Your task to perform on an android device: turn on the 12-hour format for clock Image 0: 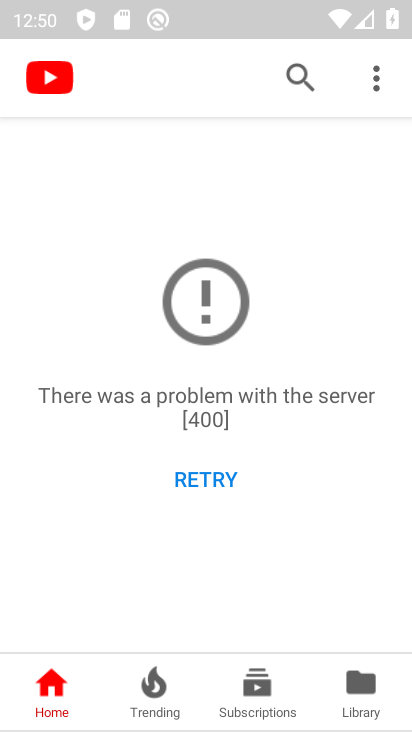
Step 0: press home button
Your task to perform on an android device: turn on the 12-hour format for clock Image 1: 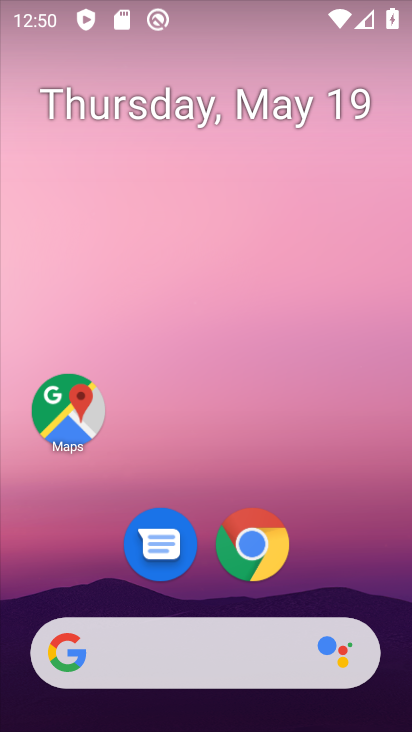
Step 1: drag from (331, 568) to (267, 122)
Your task to perform on an android device: turn on the 12-hour format for clock Image 2: 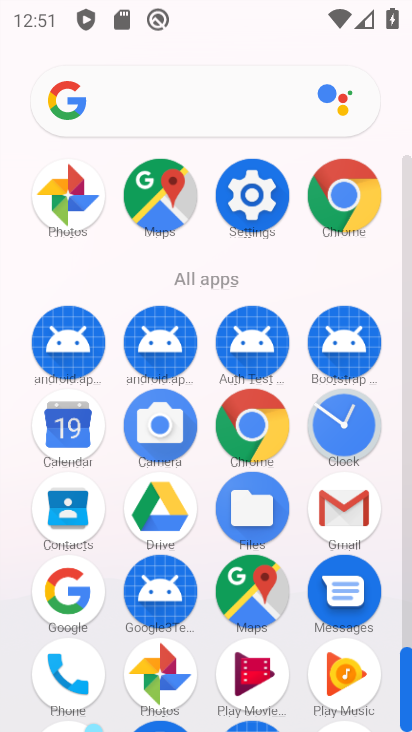
Step 2: drag from (203, 563) to (203, 423)
Your task to perform on an android device: turn on the 12-hour format for clock Image 3: 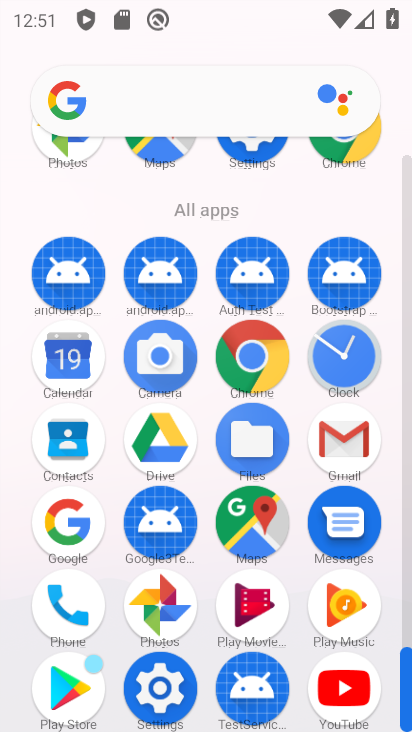
Step 3: click (367, 356)
Your task to perform on an android device: turn on the 12-hour format for clock Image 4: 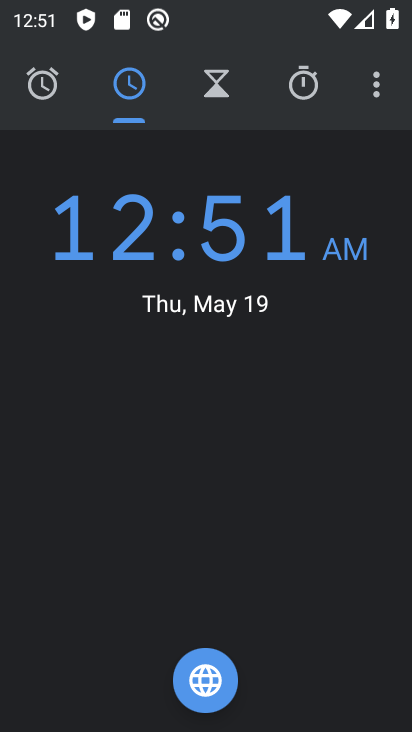
Step 4: click (366, 81)
Your task to perform on an android device: turn on the 12-hour format for clock Image 5: 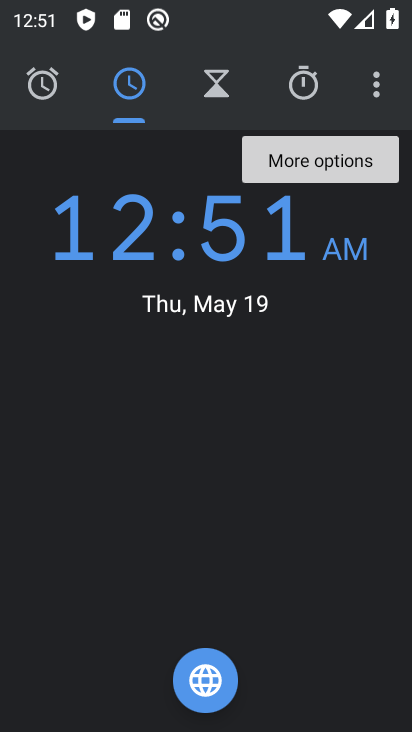
Step 5: click (376, 94)
Your task to perform on an android device: turn on the 12-hour format for clock Image 6: 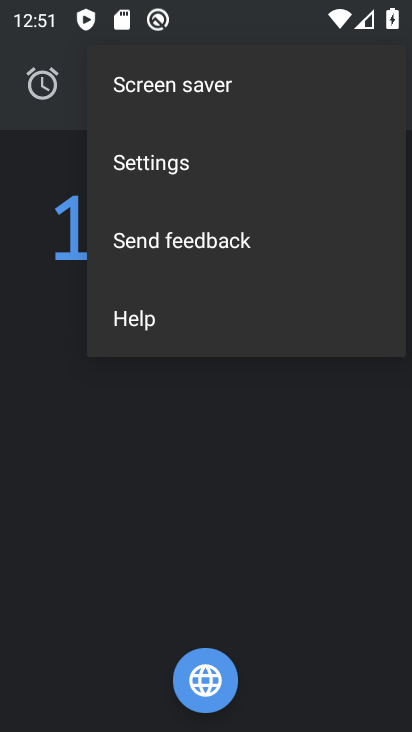
Step 6: click (142, 158)
Your task to perform on an android device: turn on the 12-hour format for clock Image 7: 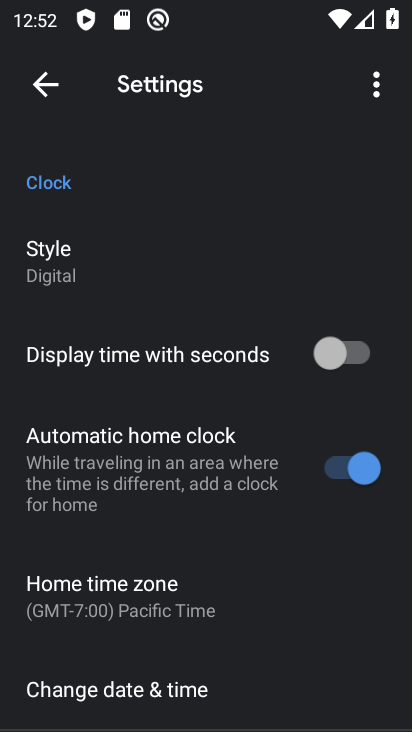
Step 7: click (205, 701)
Your task to perform on an android device: turn on the 12-hour format for clock Image 8: 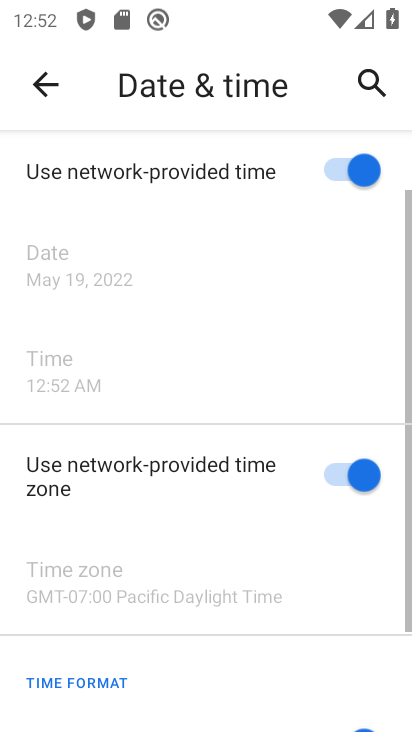
Step 8: drag from (127, 516) to (160, 391)
Your task to perform on an android device: turn on the 12-hour format for clock Image 9: 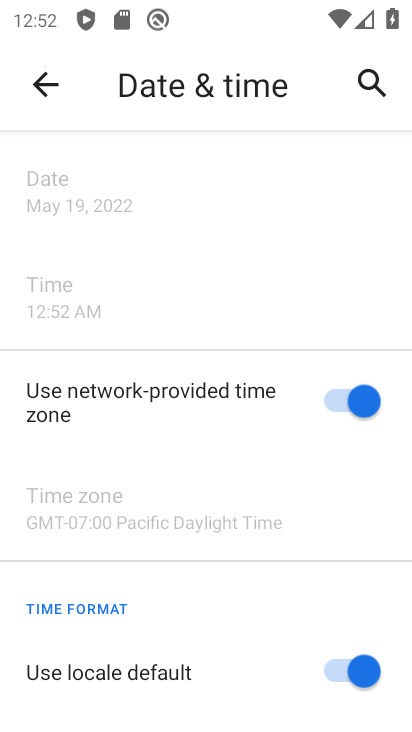
Step 9: drag from (235, 577) to (337, 291)
Your task to perform on an android device: turn on the 12-hour format for clock Image 10: 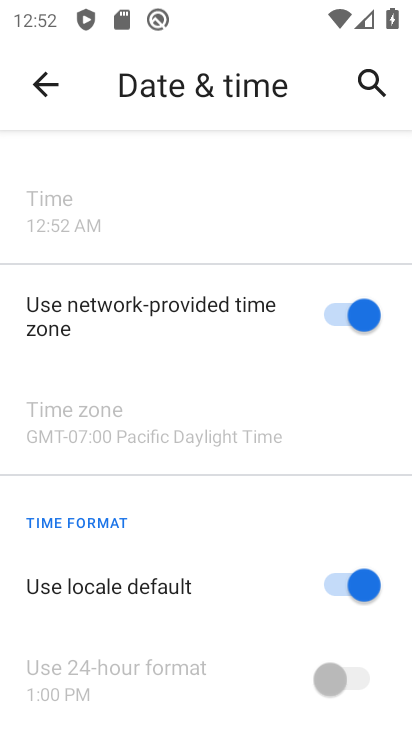
Step 10: click (343, 593)
Your task to perform on an android device: turn on the 12-hour format for clock Image 11: 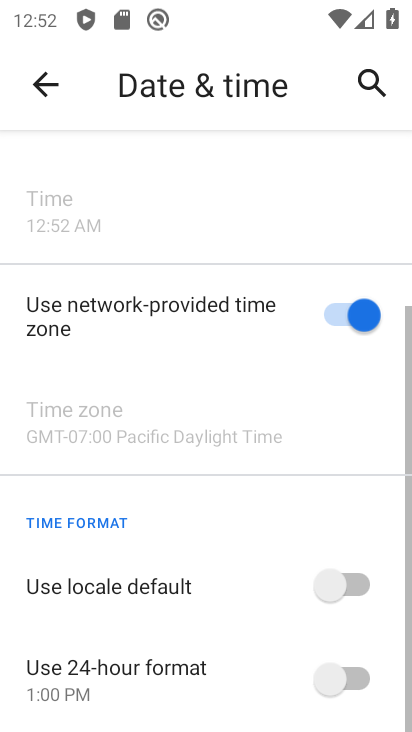
Step 11: click (348, 676)
Your task to perform on an android device: turn on the 12-hour format for clock Image 12: 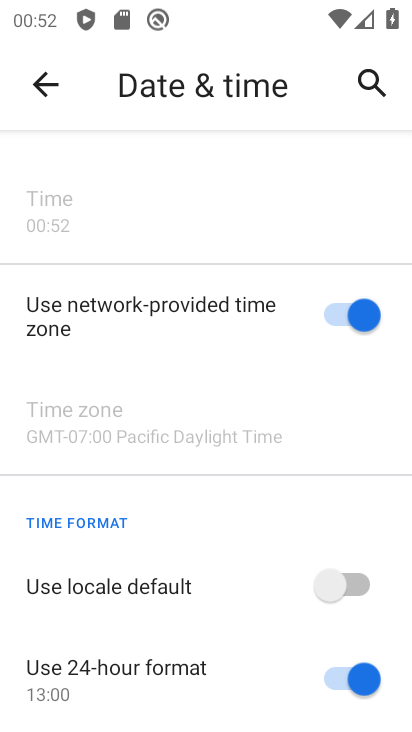
Step 12: task complete